Your task to perform on an android device: open wifi settings Image 0: 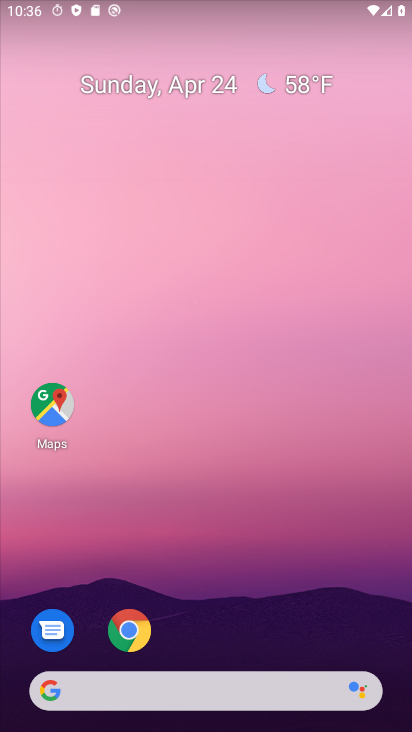
Step 0: drag from (290, 471) to (303, 302)
Your task to perform on an android device: open wifi settings Image 1: 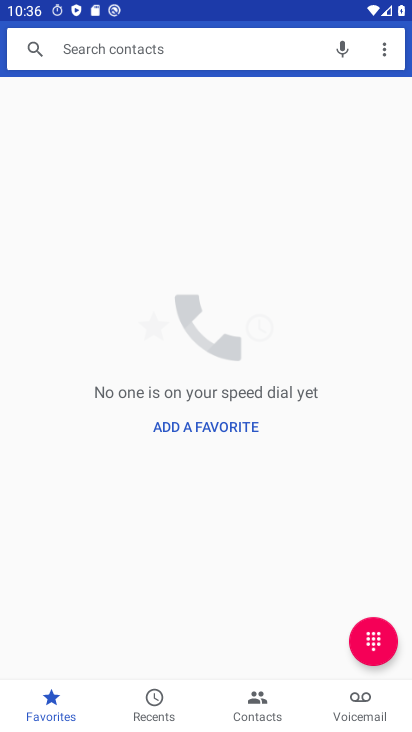
Step 1: press home button
Your task to perform on an android device: open wifi settings Image 2: 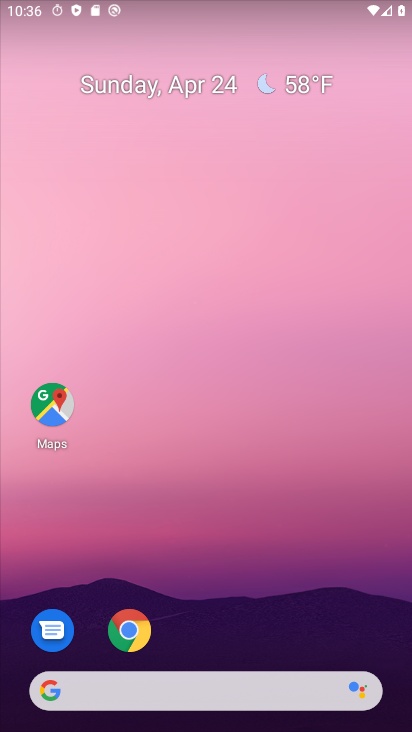
Step 2: drag from (167, 600) to (217, 326)
Your task to perform on an android device: open wifi settings Image 3: 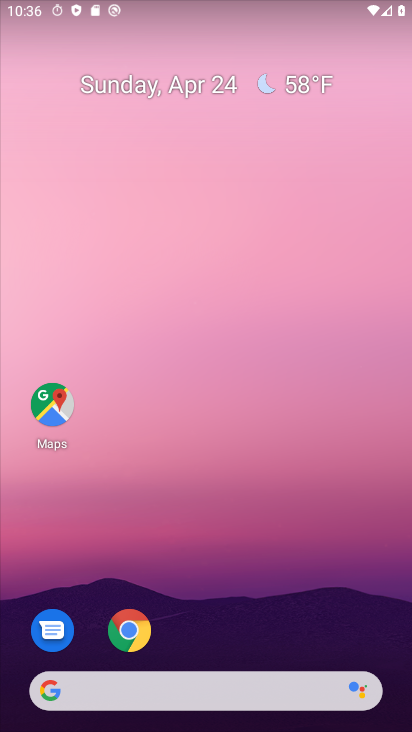
Step 3: drag from (182, 608) to (256, 249)
Your task to perform on an android device: open wifi settings Image 4: 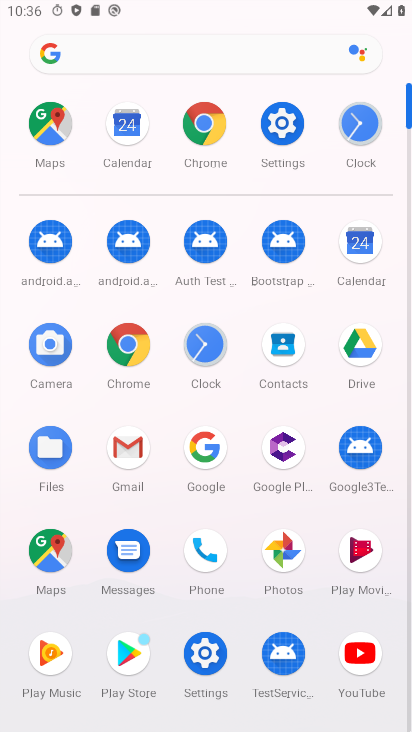
Step 4: click (272, 137)
Your task to perform on an android device: open wifi settings Image 5: 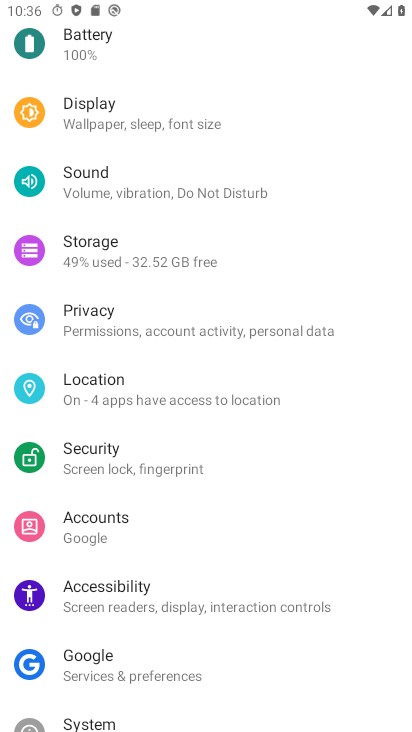
Step 5: drag from (171, 266) to (135, 652)
Your task to perform on an android device: open wifi settings Image 6: 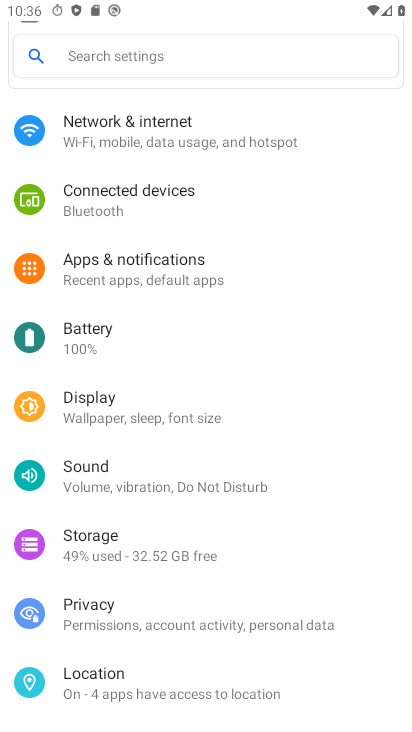
Step 6: click (177, 137)
Your task to perform on an android device: open wifi settings Image 7: 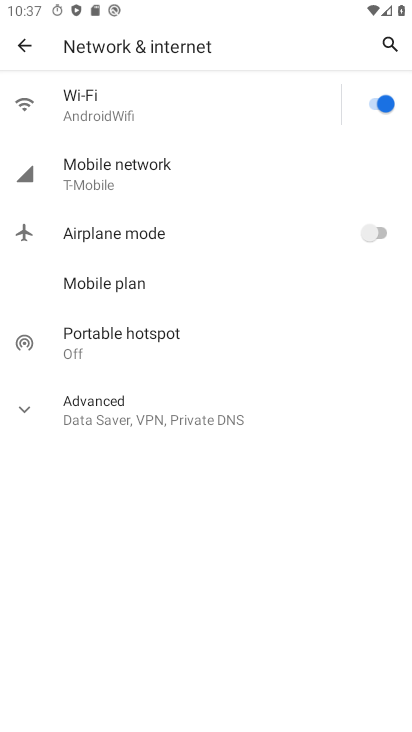
Step 7: click (154, 120)
Your task to perform on an android device: open wifi settings Image 8: 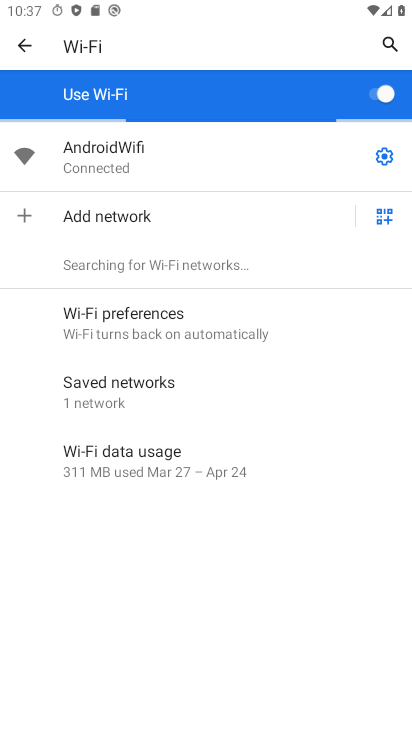
Step 8: task complete